Your task to perform on an android device: Open the phone app and click the voicemail tab. Image 0: 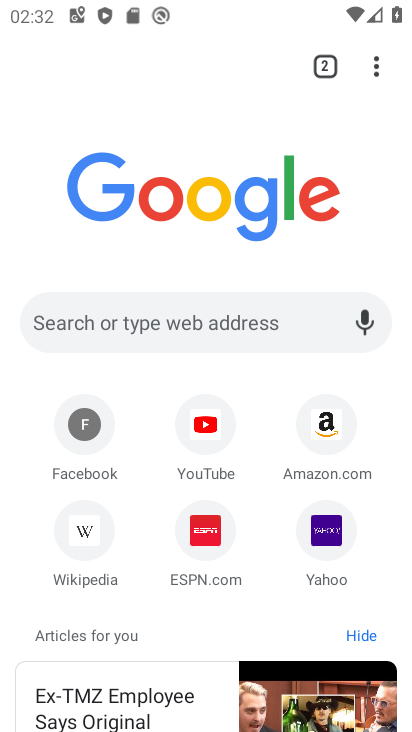
Step 0: press home button
Your task to perform on an android device: Open the phone app and click the voicemail tab. Image 1: 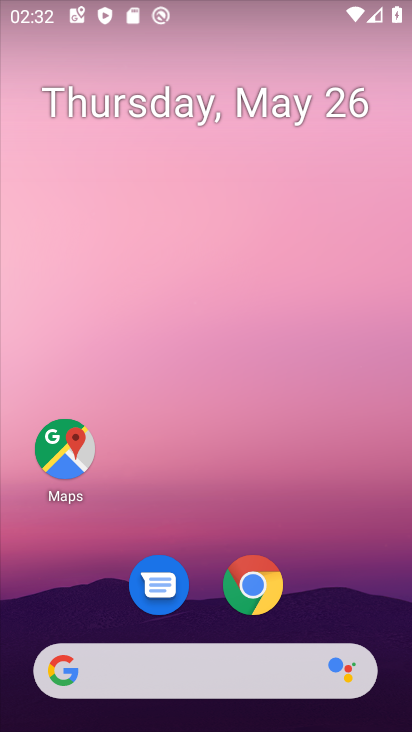
Step 1: drag from (230, 512) to (286, 27)
Your task to perform on an android device: Open the phone app and click the voicemail tab. Image 2: 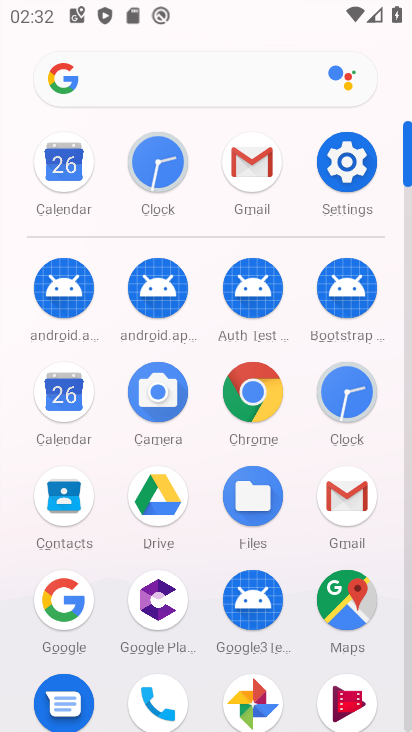
Step 2: click (169, 688)
Your task to perform on an android device: Open the phone app and click the voicemail tab. Image 3: 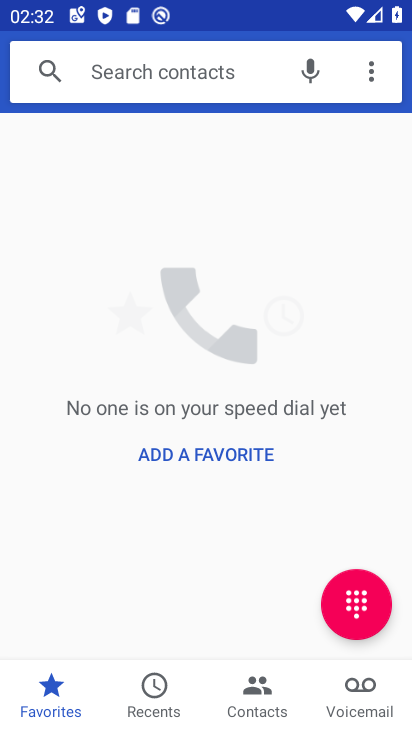
Step 3: click (358, 688)
Your task to perform on an android device: Open the phone app and click the voicemail tab. Image 4: 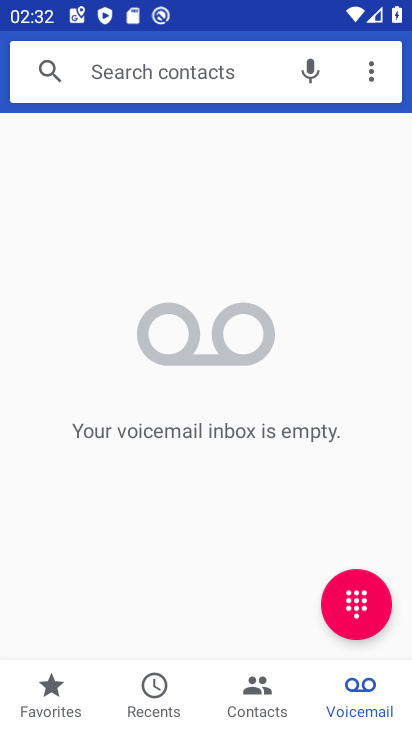
Step 4: click (361, 687)
Your task to perform on an android device: Open the phone app and click the voicemail tab. Image 5: 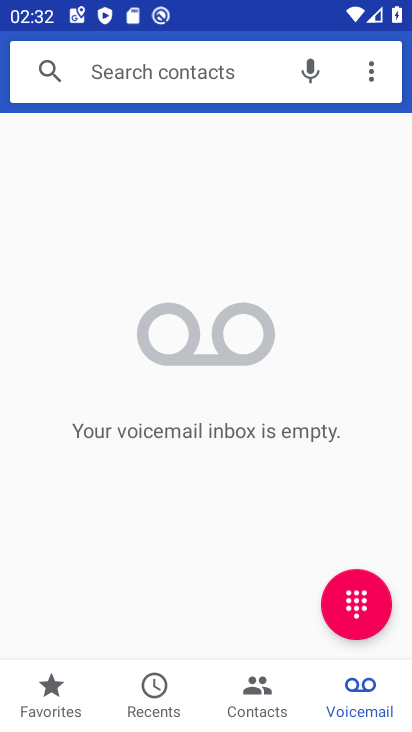
Step 5: task complete